Your task to perform on an android device: check out phone information Image 0: 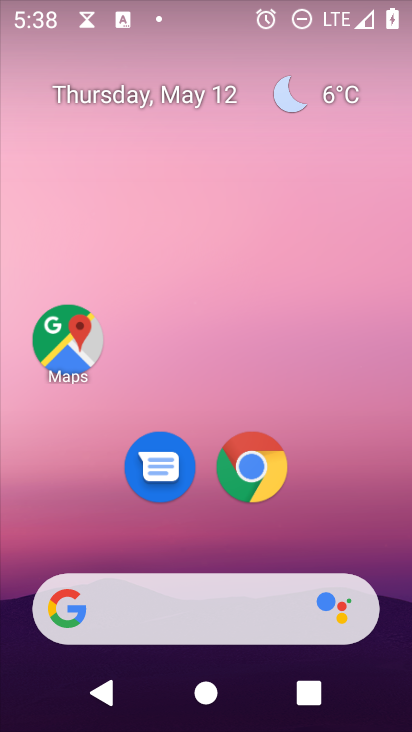
Step 0: drag from (275, 622) to (302, 6)
Your task to perform on an android device: check out phone information Image 1: 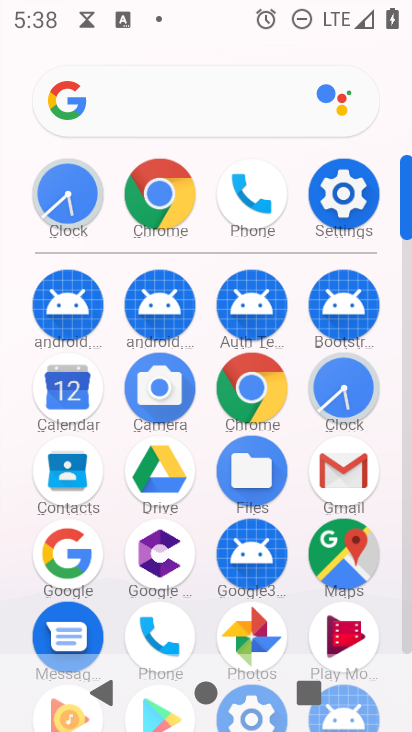
Step 1: click (335, 183)
Your task to perform on an android device: check out phone information Image 2: 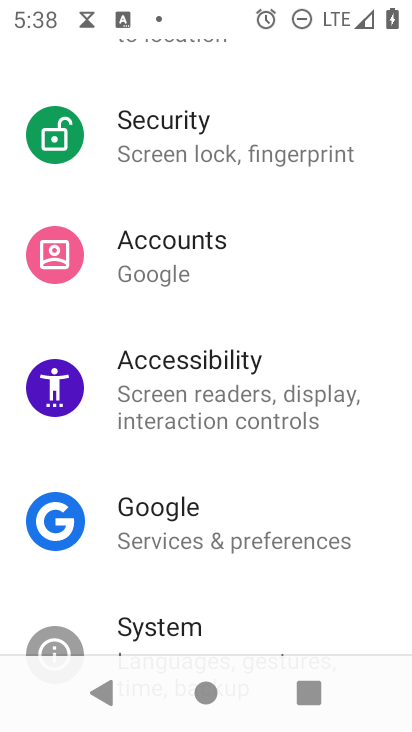
Step 2: drag from (240, 622) to (281, 19)
Your task to perform on an android device: check out phone information Image 3: 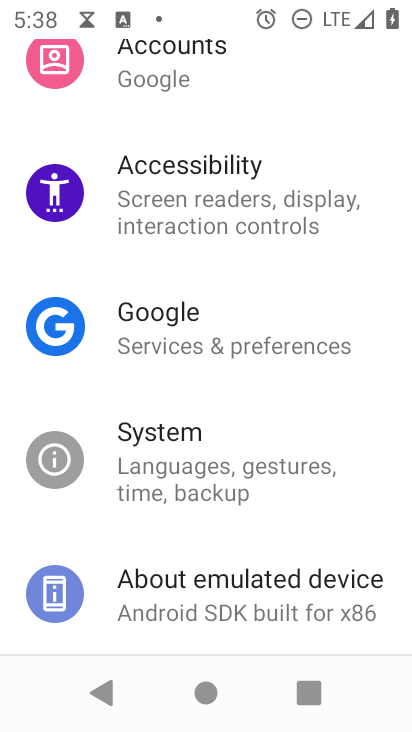
Step 3: click (279, 603)
Your task to perform on an android device: check out phone information Image 4: 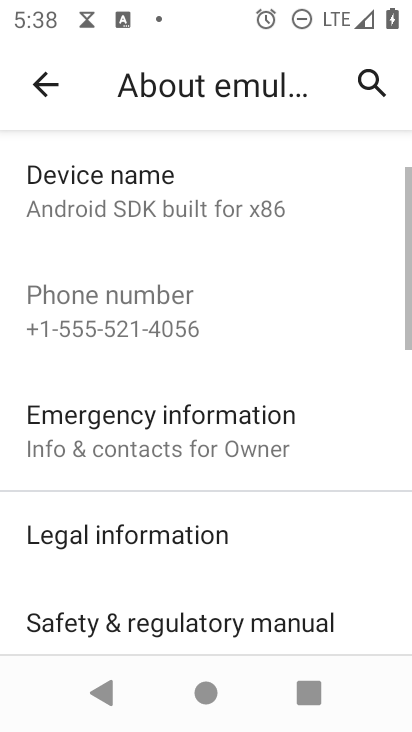
Step 4: task complete